Your task to perform on an android device: turn on wifi Image 0: 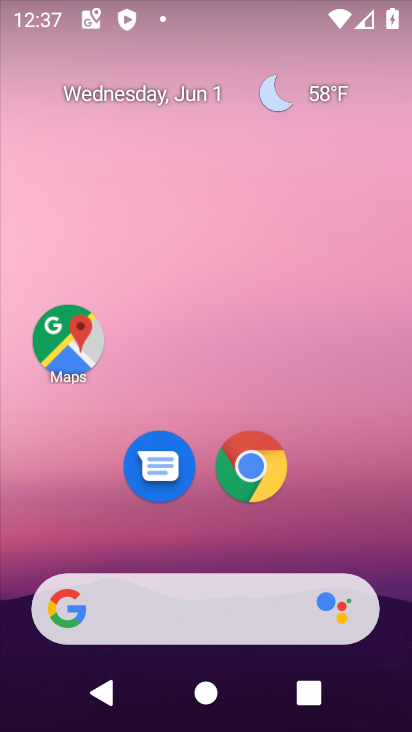
Step 0: drag from (384, 563) to (291, 191)
Your task to perform on an android device: turn on wifi Image 1: 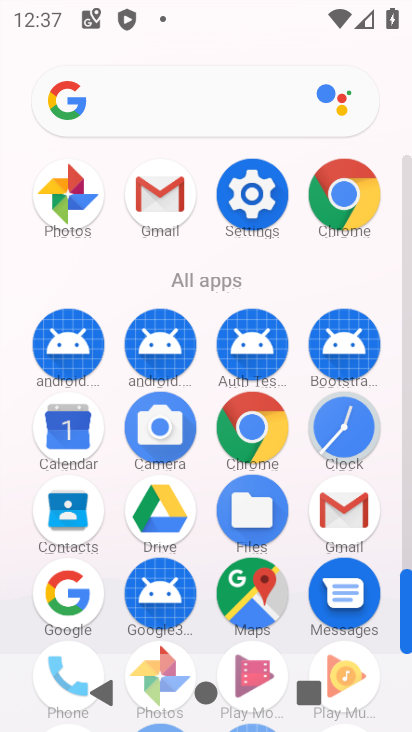
Step 1: click (259, 192)
Your task to perform on an android device: turn on wifi Image 2: 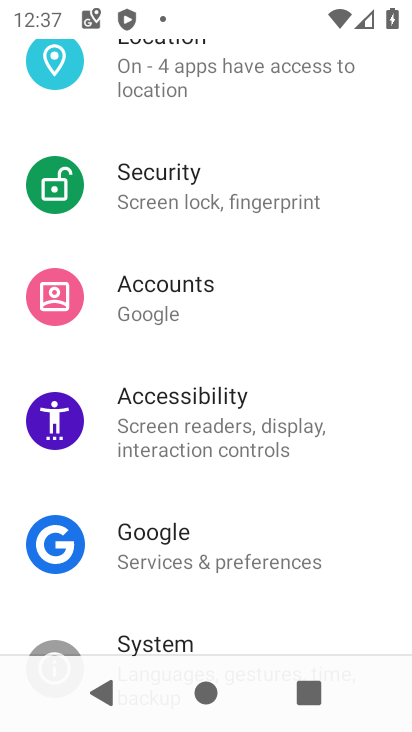
Step 2: drag from (262, 114) to (255, 687)
Your task to perform on an android device: turn on wifi Image 3: 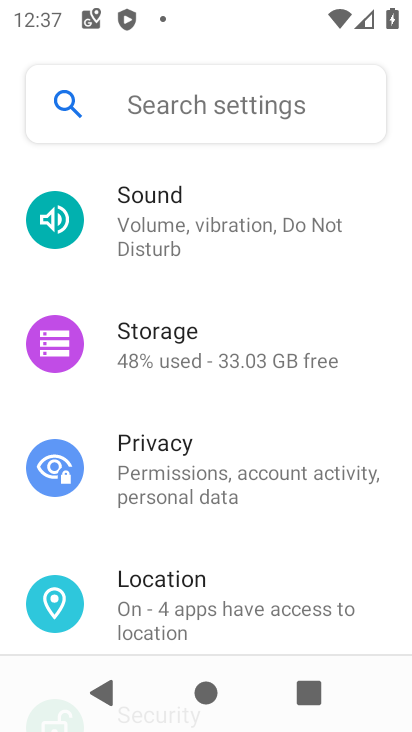
Step 3: drag from (232, 155) to (266, 591)
Your task to perform on an android device: turn on wifi Image 4: 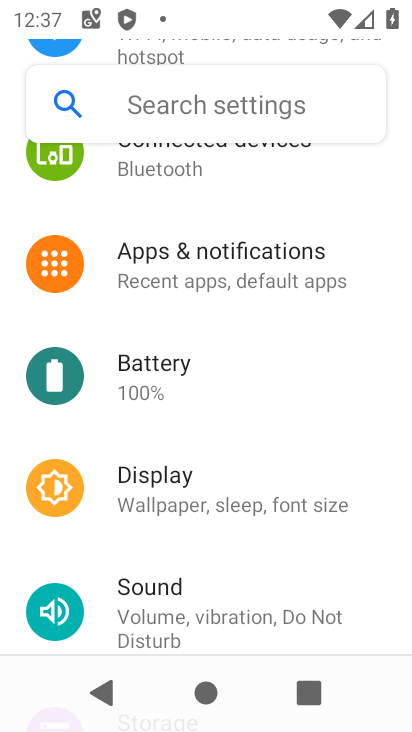
Step 4: drag from (241, 188) to (238, 629)
Your task to perform on an android device: turn on wifi Image 5: 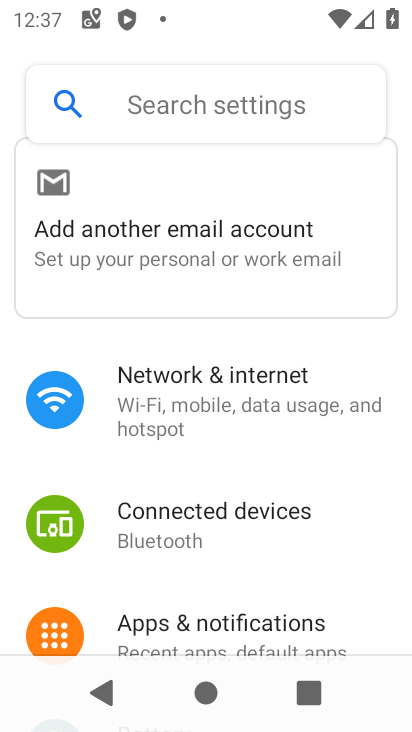
Step 5: click (226, 399)
Your task to perform on an android device: turn on wifi Image 6: 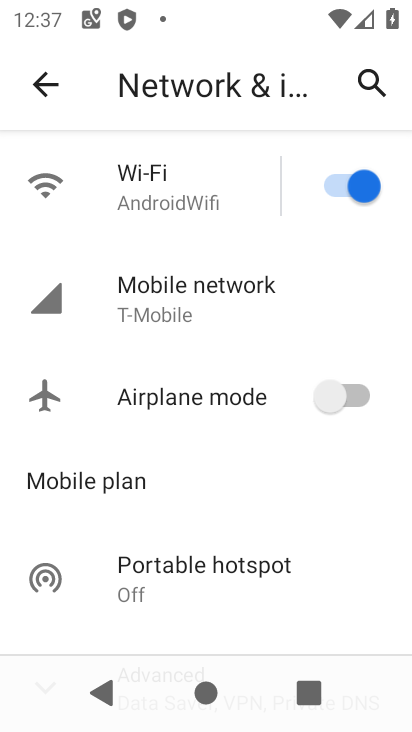
Step 6: task complete